Your task to perform on an android device: turn on airplane mode Image 0: 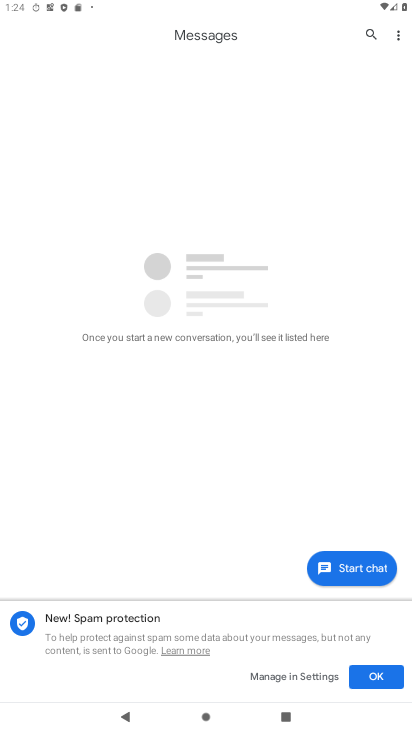
Step 0: press home button
Your task to perform on an android device: turn on airplane mode Image 1: 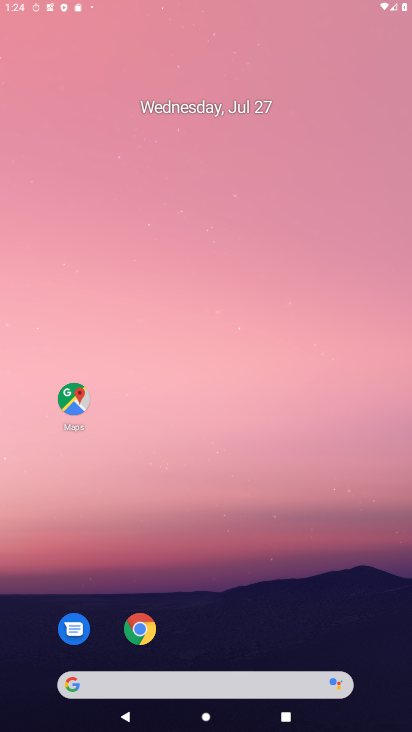
Step 1: drag from (375, 652) to (167, 71)
Your task to perform on an android device: turn on airplane mode Image 2: 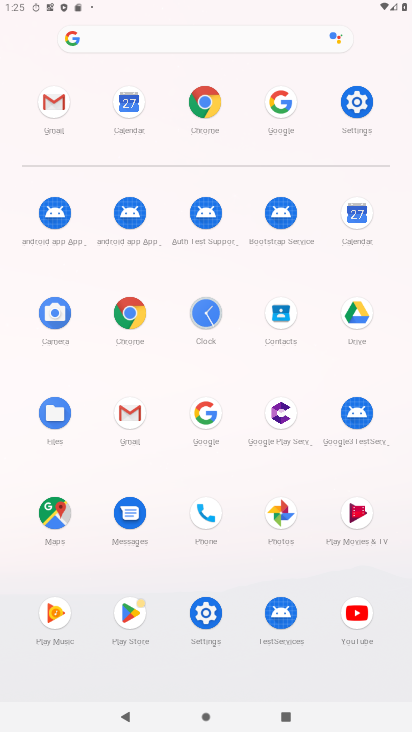
Step 2: drag from (258, 1) to (303, 665)
Your task to perform on an android device: turn on airplane mode Image 3: 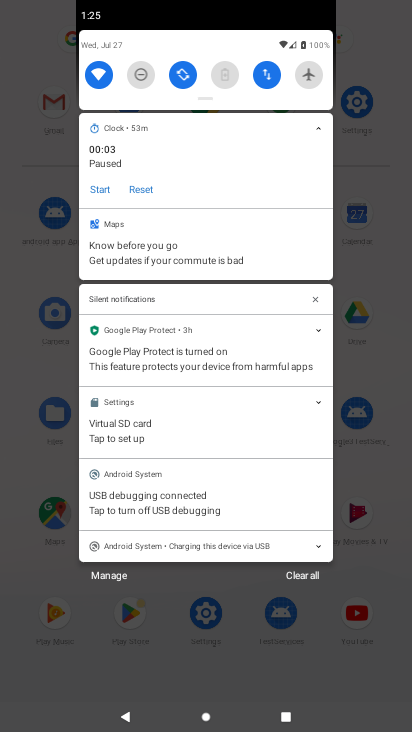
Step 3: click (310, 69)
Your task to perform on an android device: turn on airplane mode Image 4: 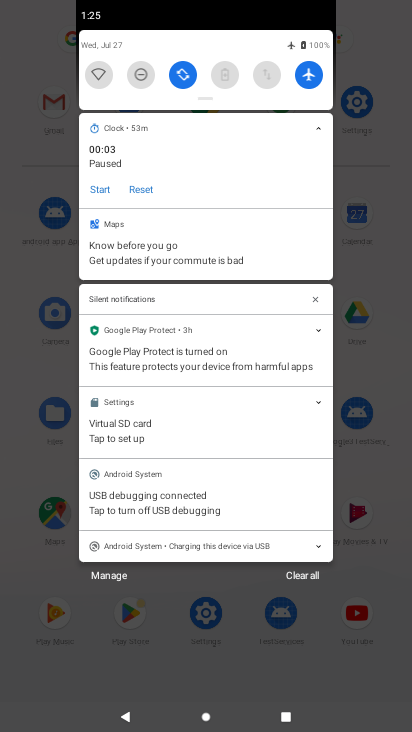
Step 4: task complete